Your task to perform on an android device: Open Google Maps Image 0: 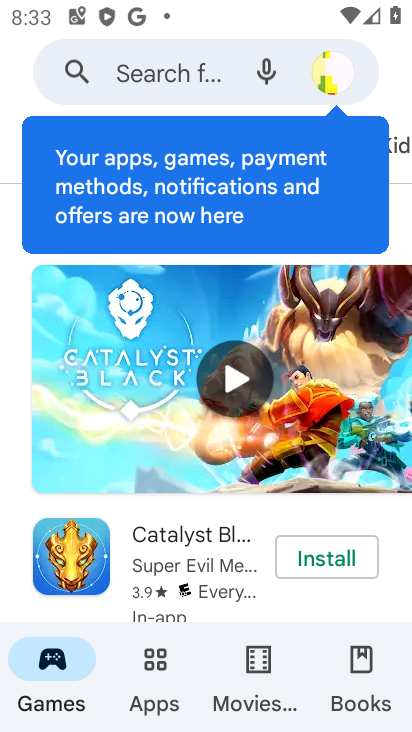
Step 0: press home button
Your task to perform on an android device: Open Google Maps Image 1: 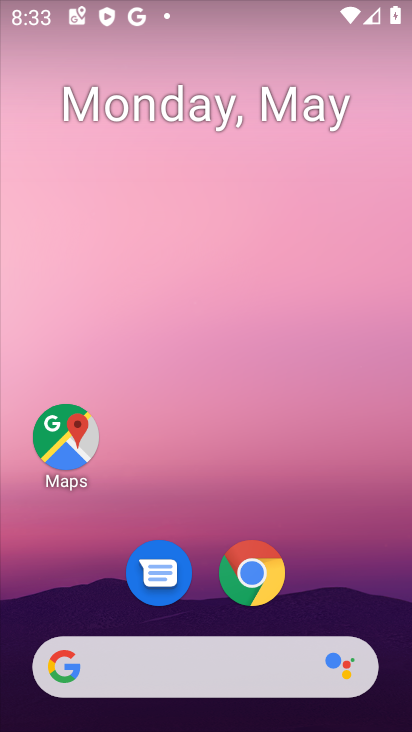
Step 1: drag from (191, 707) to (187, 178)
Your task to perform on an android device: Open Google Maps Image 2: 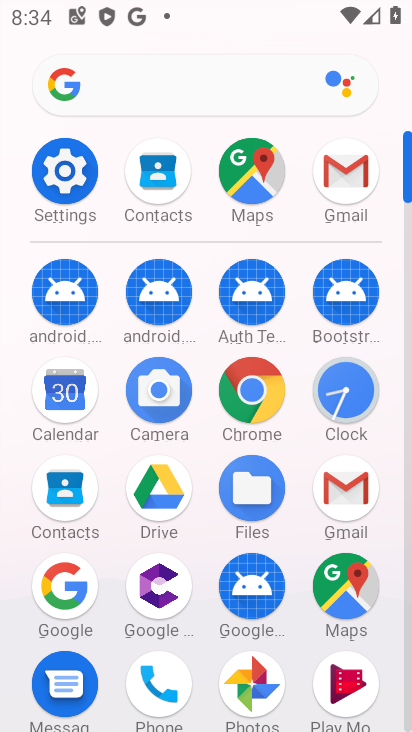
Step 2: click (372, 590)
Your task to perform on an android device: Open Google Maps Image 3: 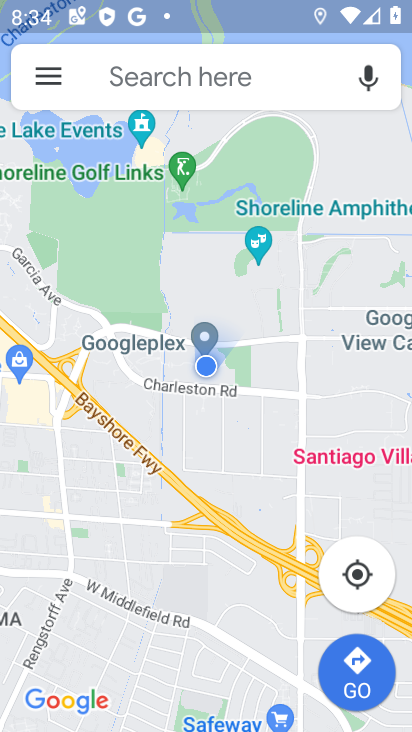
Step 3: task complete